Your task to perform on an android device: Open sound settings Image 0: 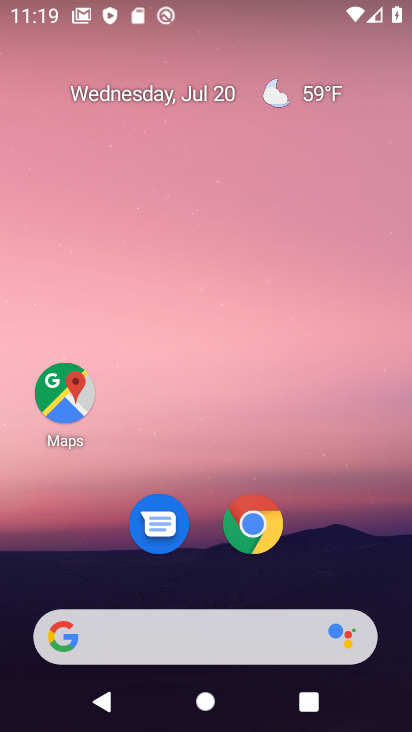
Step 0: press home button
Your task to perform on an android device: Open sound settings Image 1: 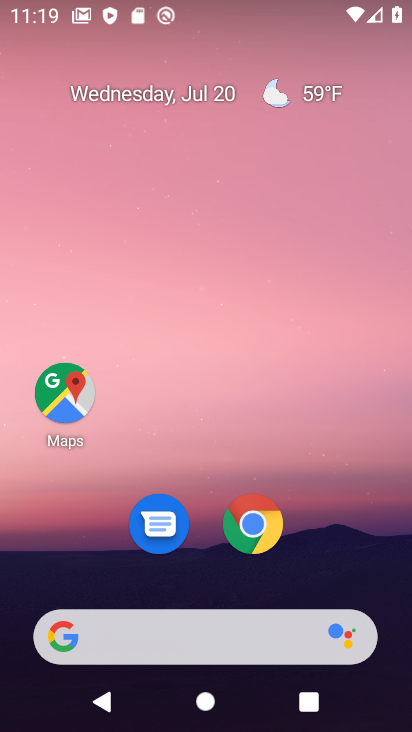
Step 1: drag from (198, 593) to (311, 106)
Your task to perform on an android device: Open sound settings Image 2: 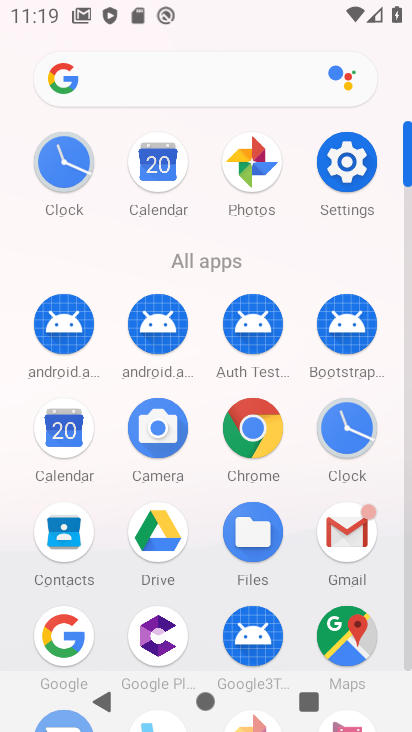
Step 2: click (348, 167)
Your task to perform on an android device: Open sound settings Image 3: 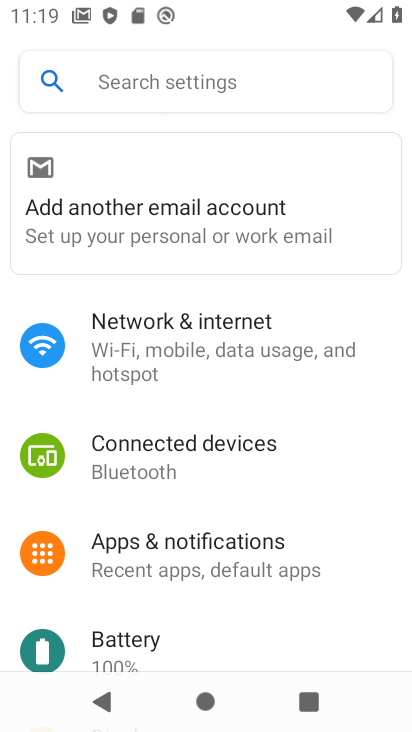
Step 3: drag from (197, 529) to (245, 89)
Your task to perform on an android device: Open sound settings Image 4: 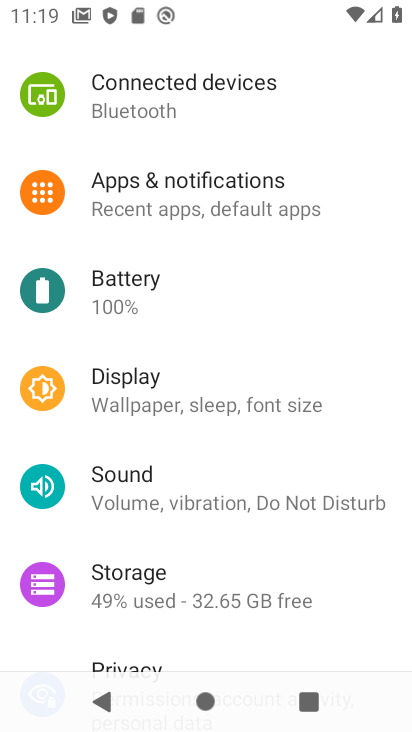
Step 4: click (148, 493)
Your task to perform on an android device: Open sound settings Image 5: 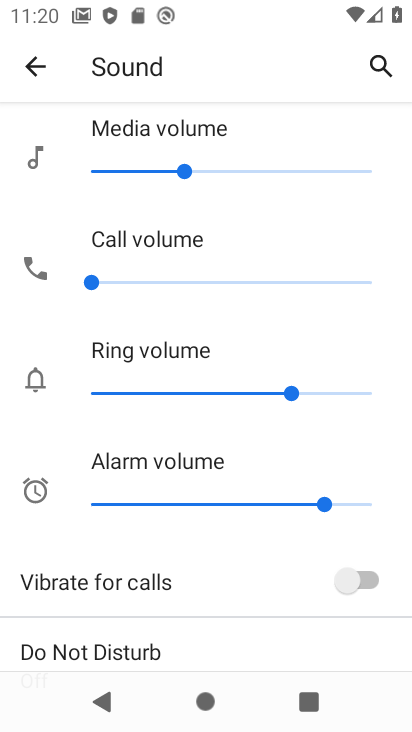
Step 5: task complete